Your task to perform on an android device: change notifications settings Image 0: 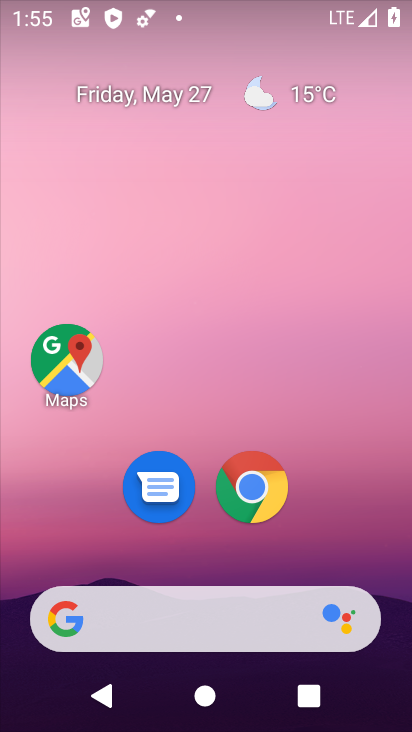
Step 0: drag from (343, 492) to (315, 157)
Your task to perform on an android device: change notifications settings Image 1: 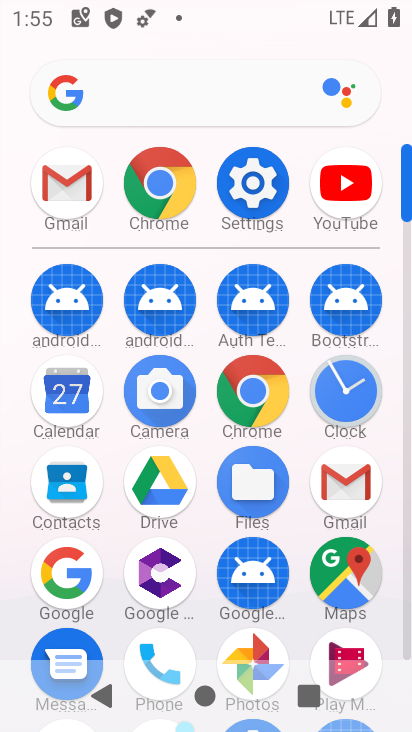
Step 1: click (261, 188)
Your task to perform on an android device: change notifications settings Image 2: 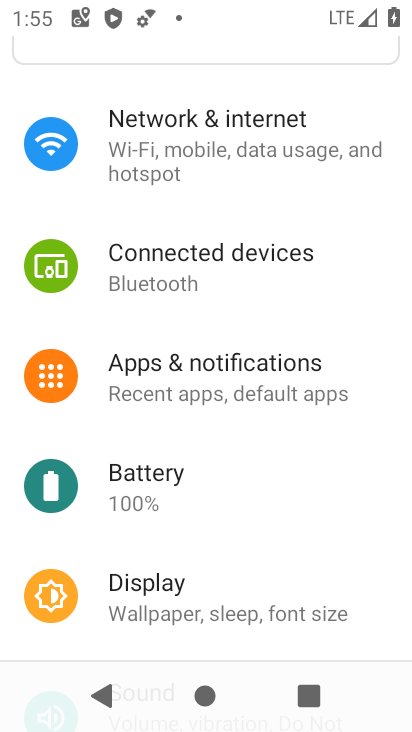
Step 2: click (239, 367)
Your task to perform on an android device: change notifications settings Image 3: 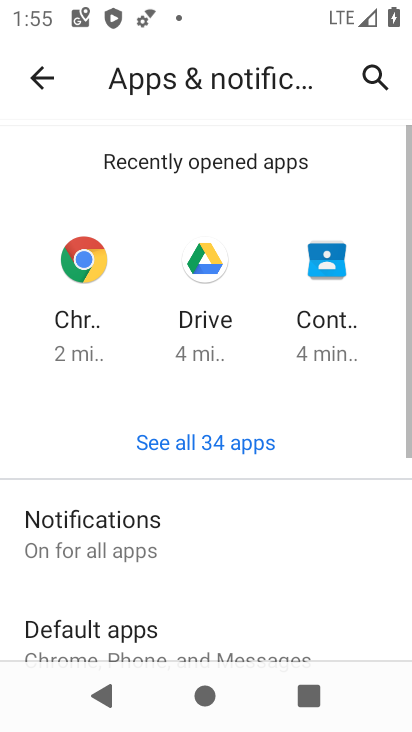
Step 3: drag from (222, 559) to (334, 62)
Your task to perform on an android device: change notifications settings Image 4: 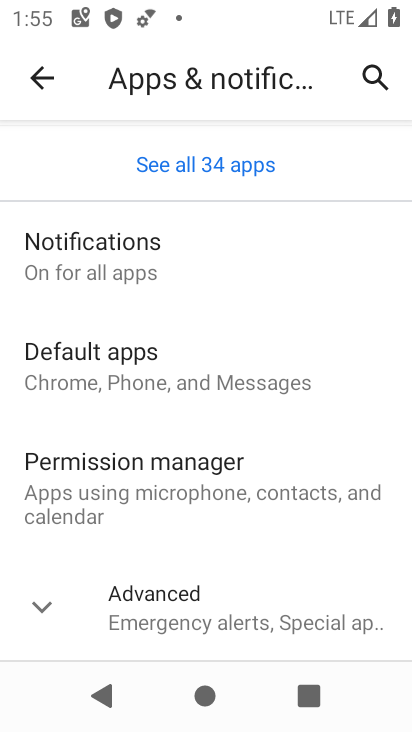
Step 4: click (138, 258)
Your task to perform on an android device: change notifications settings Image 5: 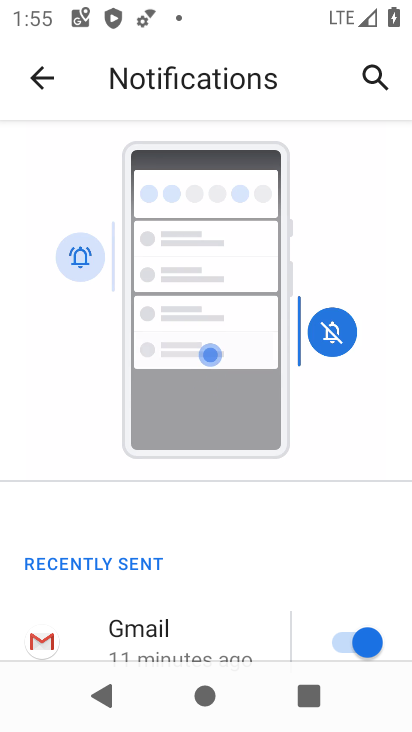
Step 5: drag from (274, 514) to (325, 16)
Your task to perform on an android device: change notifications settings Image 6: 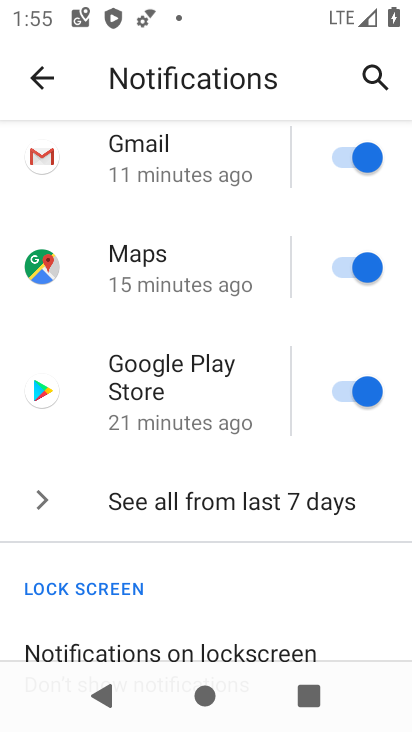
Step 6: drag from (236, 506) to (265, 80)
Your task to perform on an android device: change notifications settings Image 7: 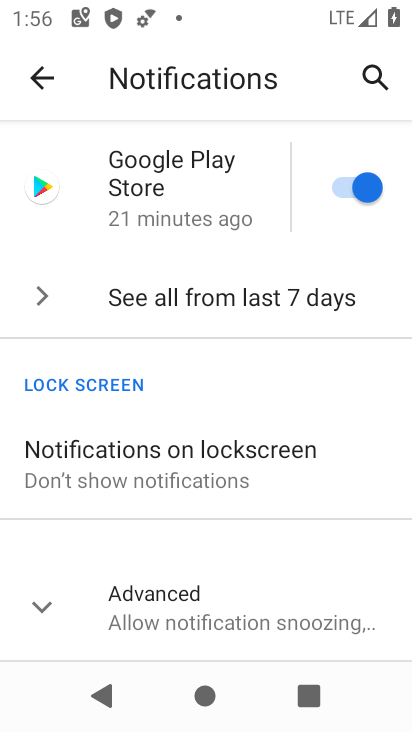
Step 7: click (192, 607)
Your task to perform on an android device: change notifications settings Image 8: 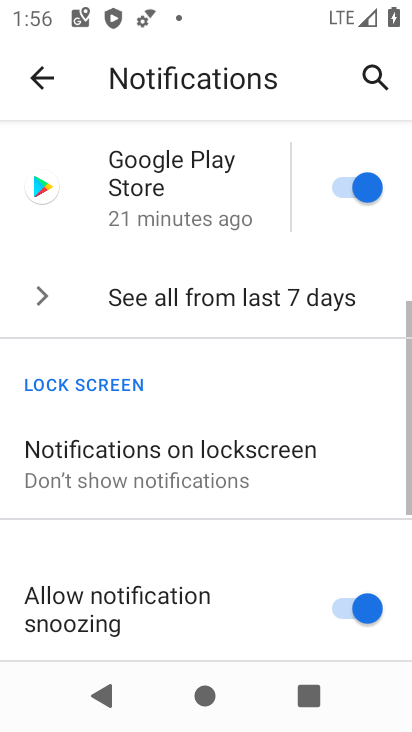
Step 8: drag from (229, 585) to (212, 127)
Your task to perform on an android device: change notifications settings Image 9: 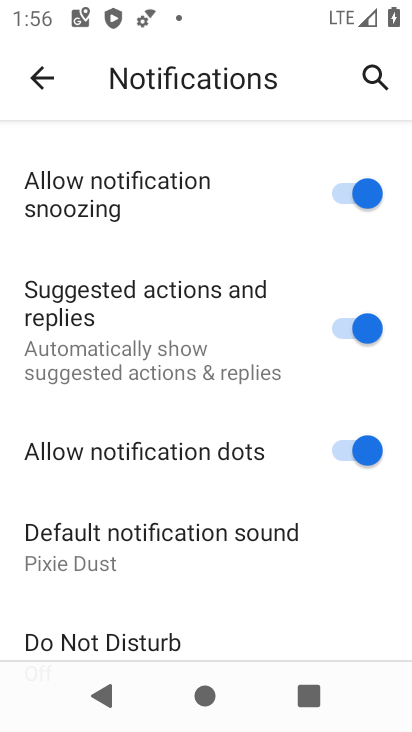
Step 9: click (297, 617)
Your task to perform on an android device: change notifications settings Image 10: 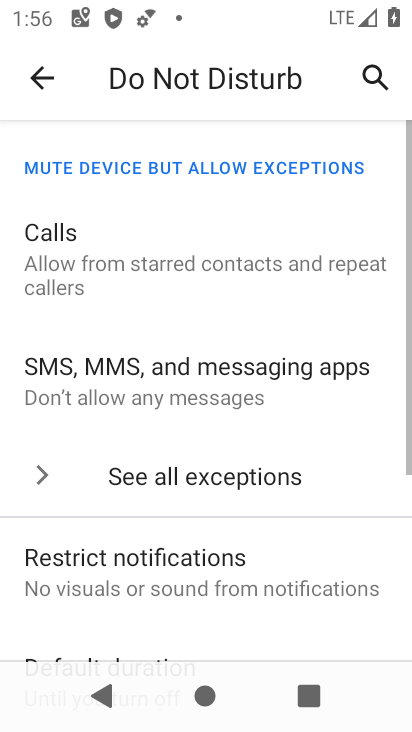
Step 10: click (367, 173)
Your task to perform on an android device: change notifications settings Image 11: 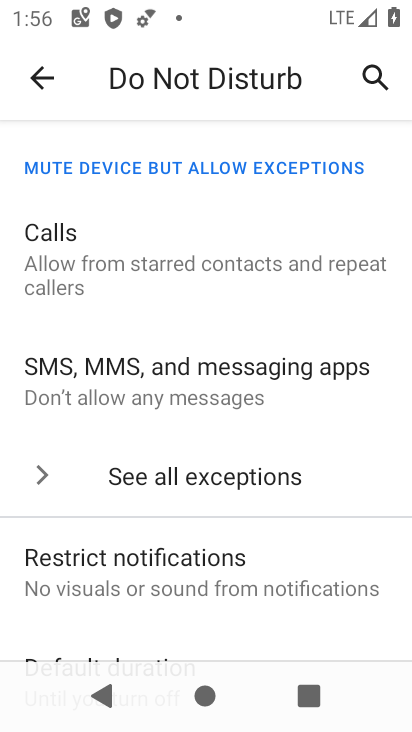
Step 11: click (37, 76)
Your task to perform on an android device: change notifications settings Image 12: 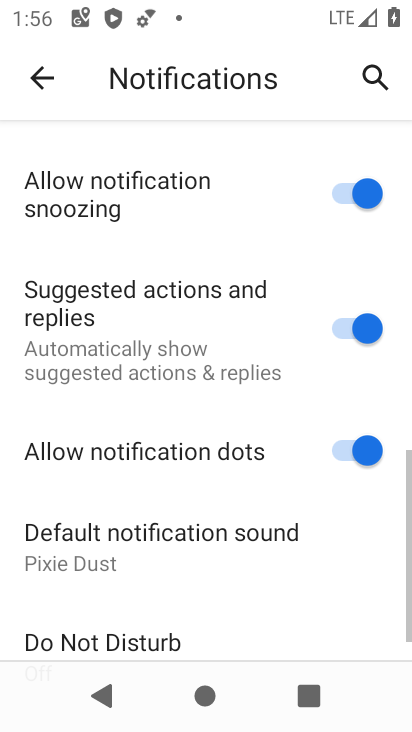
Step 12: click (345, 183)
Your task to perform on an android device: change notifications settings Image 13: 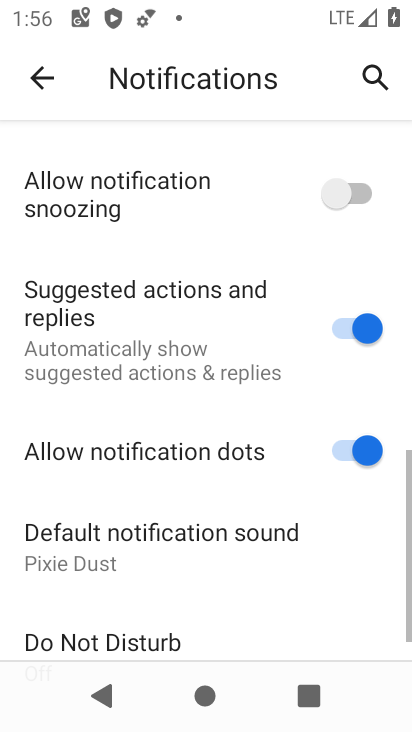
Step 13: task complete